Your task to perform on an android device: Open calendar and show me the fourth week of next month Image 0: 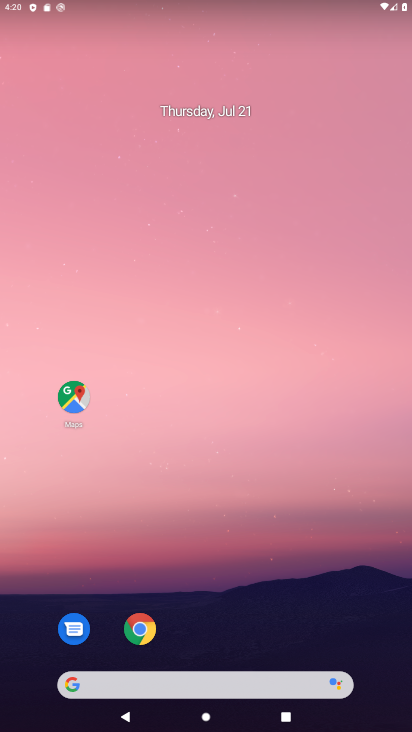
Step 0: press home button
Your task to perform on an android device: Open calendar and show me the fourth week of next month Image 1: 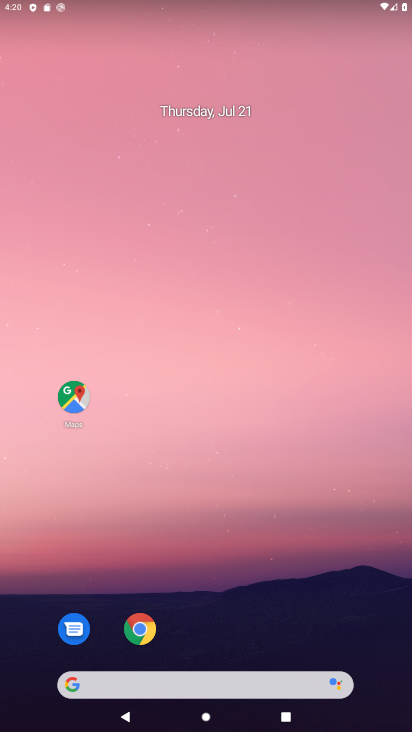
Step 1: drag from (211, 643) to (154, 21)
Your task to perform on an android device: Open calendar and show me the fourth week of next month Image 2: 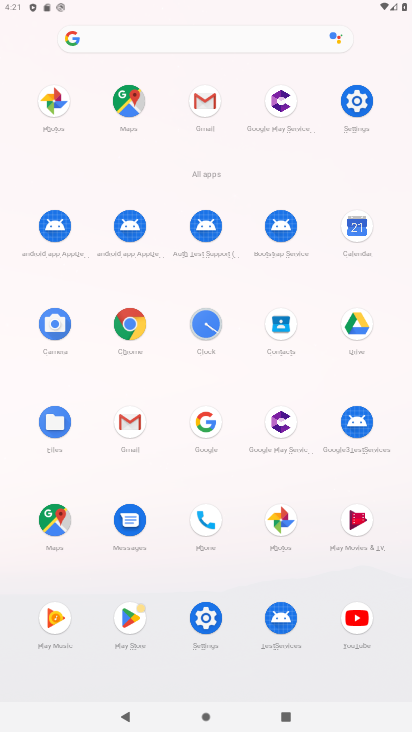
Step 2: click (351, 225)
Your task to perform on an android device: Open calendar and show me the fourth week of next month Image 3: 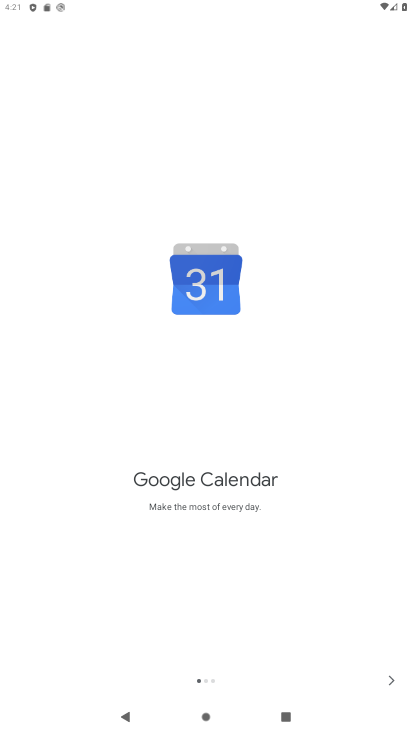
Step 3: click (383, 675)
Your task to perform on an android device: Open calendar and show me the fourth week of next month Image 4: 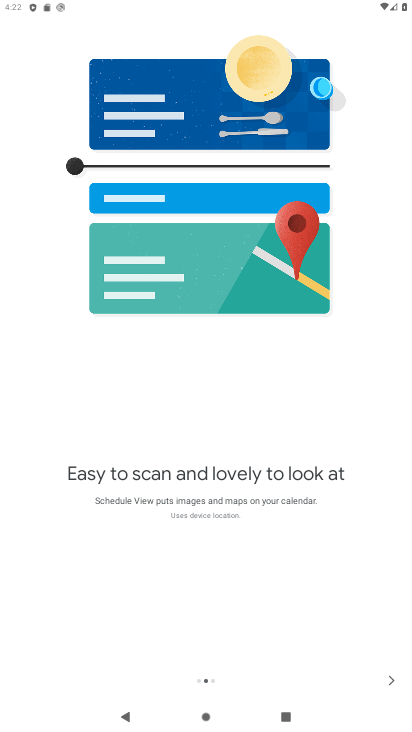
Step 4: click (383, 675)
Your task to perform on an android device: Open calendar and show me the fourth week of next month Image 5: 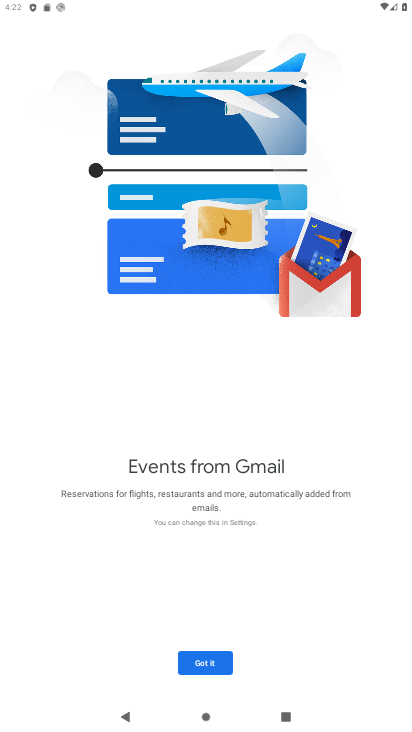
Step 5: click (202, 656)
Your task to perform on an android device: Open calendar and show me the fourth week of next month Image 6: 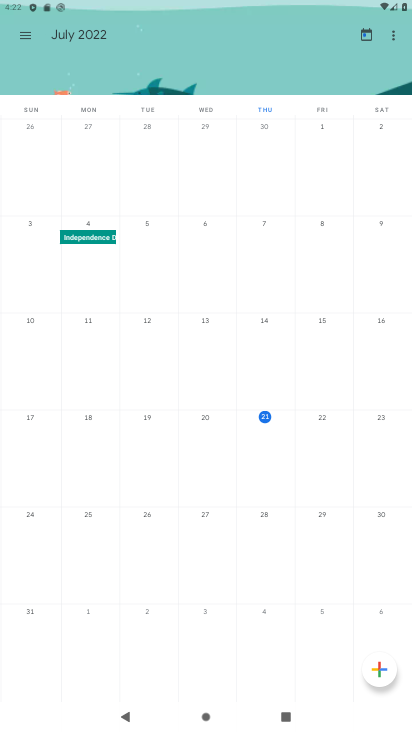
Step 6: click (21, 32)
Your task to perform on an android device: Open calendar and show me the fourth week of next month Image 7: 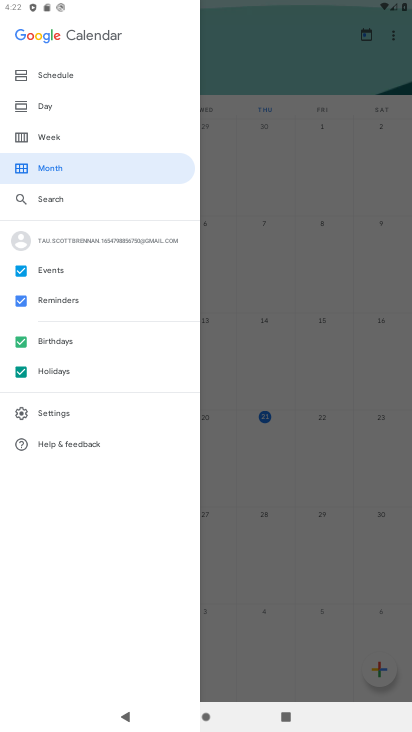
Step 7: click (45, 131)
Your task to perform on an android device: Open calendar and show me the fourth week of next month Image 8: 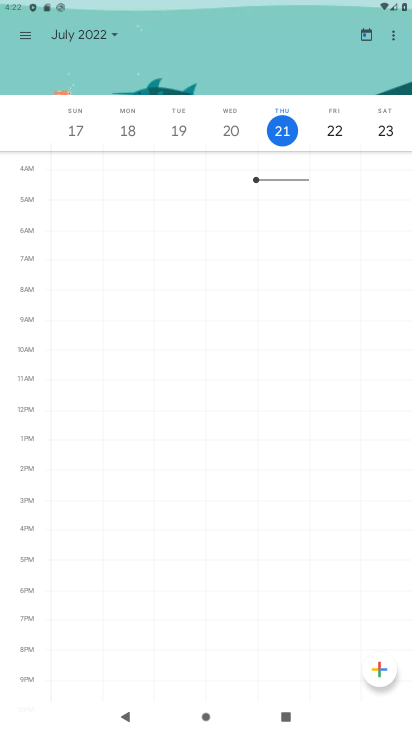
Step 8: drag from (385, 118) to (11, 79)
Your task to perform on an android device: Open calendar and show me the fourth week of next month Image 9: 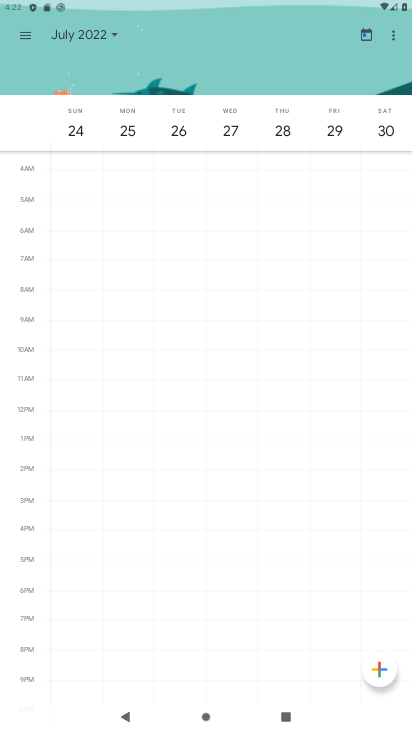
Step 9: click (111, 31)
Your task to perform on an android device: Open calendar and show me the fourth week of next month Image 10: 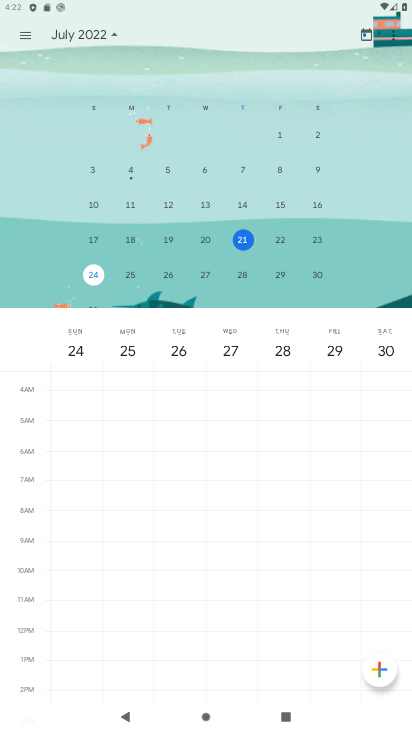
Step 10: drag from (296, 199) to (0, 184)
Your task to perform on an android device: Open calendar and show me the fourth week of next month Image 11: 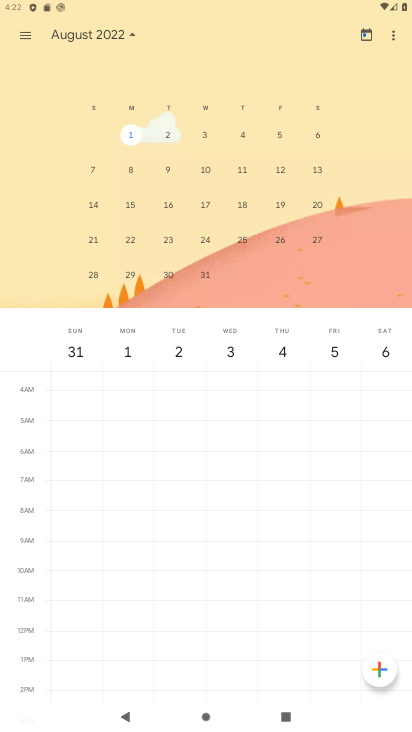
Step 11: click (93, 240)
Your task to perform on an android device: Open calendar and show me the fourth week of next month Image 12: 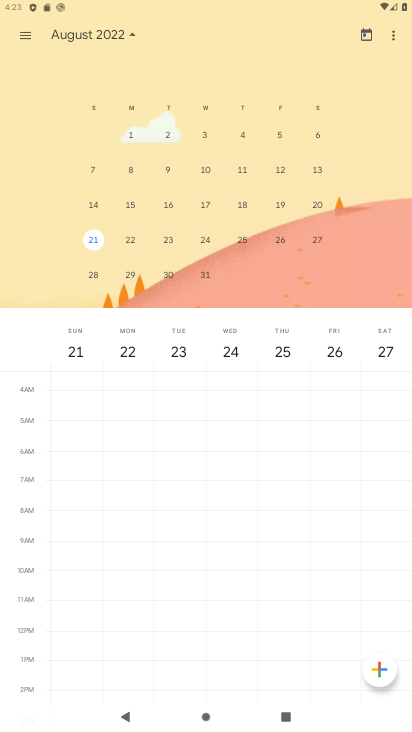
Step 12: click (128, 34)
Your task to perform on an android device: Open calendar and show me the fourth week of next month Image 13: 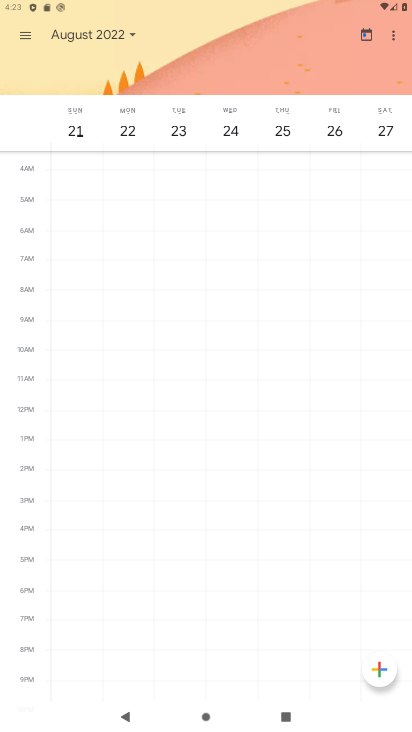
Step 13: task complete